Your task to perform on an android device: Open calendar and show me the second week of next month Image 0: 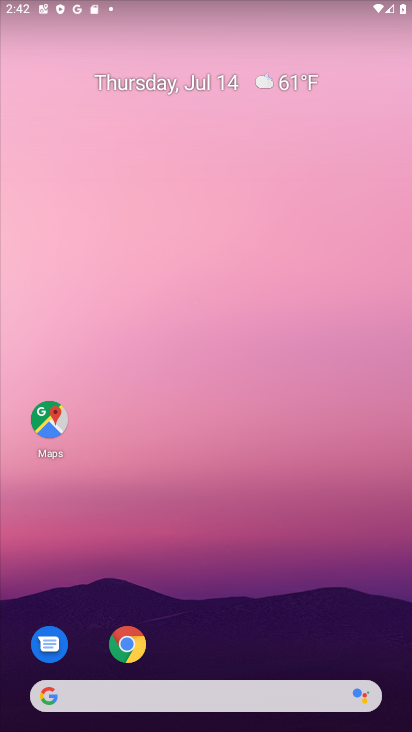
Step 0: drag from (221, 574) to (176, 74)
Your task to perform on an android device: Open calendar and show me the second week of next month Image 1: 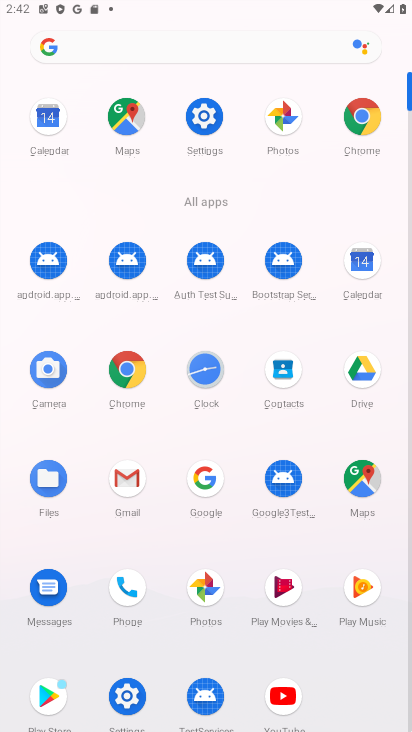
Step 1: click (366, 259)
Your task to perform on an android device: Open calendar and show me the second week of next month Image 2: 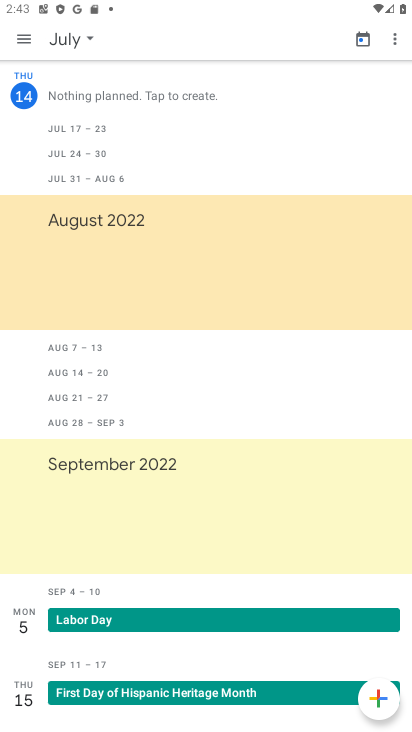
Step 2: click (48, 37)
Your task to perform on an android device: Open calendar and show me the second week of next month Image 3: 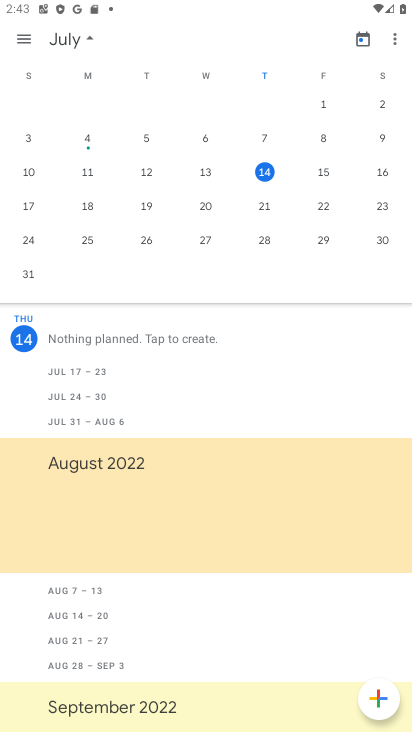
Step 3: task complete